Your task to perform on an android device: Show me the alarms in the clock app Image 0: 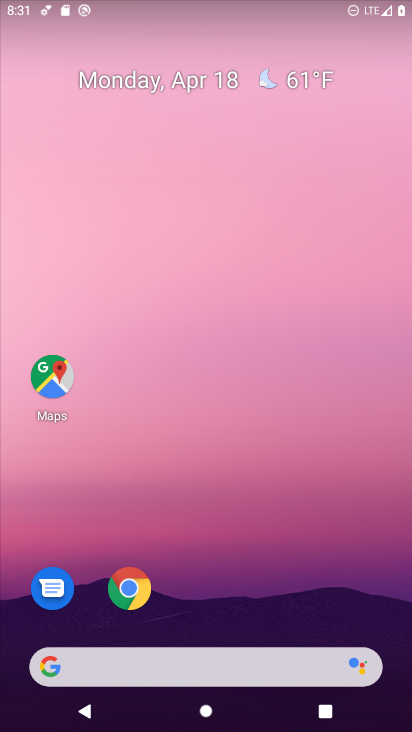
Step 0: drag from (394, 636) to (327, 152)
Your task to perform on an android device: Show me the alarms in the clock app Image 1: 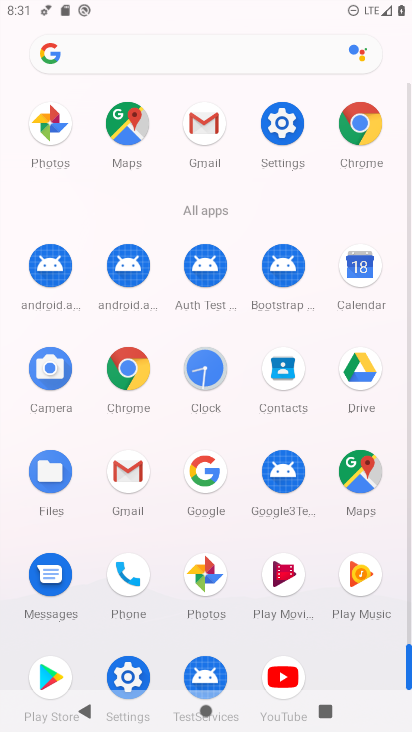
Step 1: click (205, 365)
Your task to perform on an android device: Show me the alarms in the clock app Image 2: 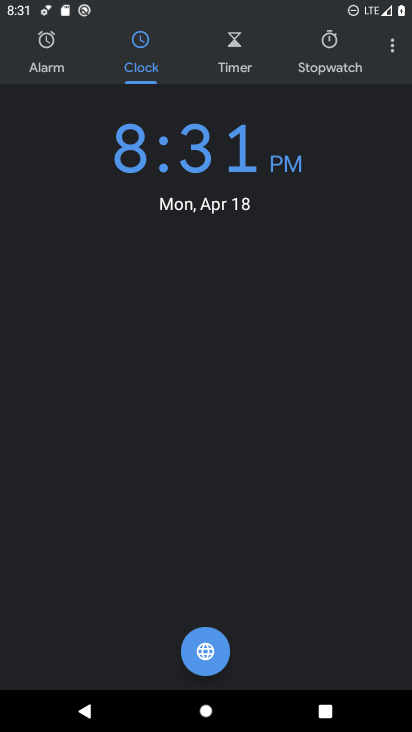
Step 2: click (44, 40)
Your task to perform on an android device: Show me the alarms in the clock app Image 3: 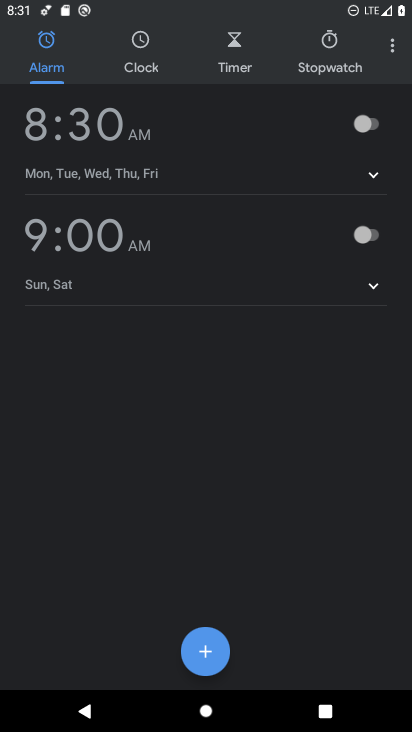
Step 3: task complete